Your task to perform on an android device: Go to Reddit.com Image 0: 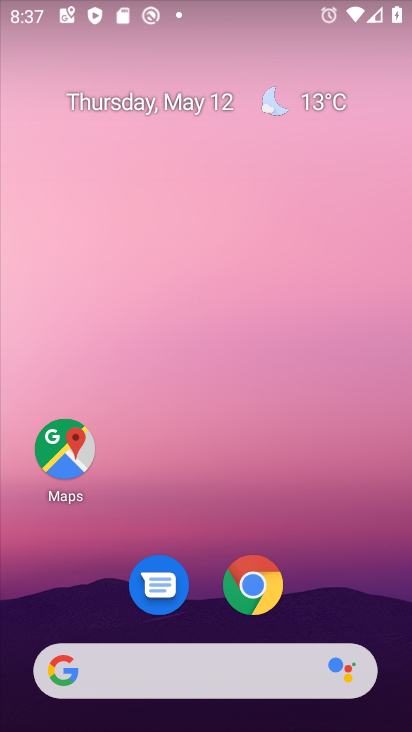
Step 0: drag from (227, 502) to (279, 8)
Your task to perform on an android device: Go to Reddit.com Image 1: 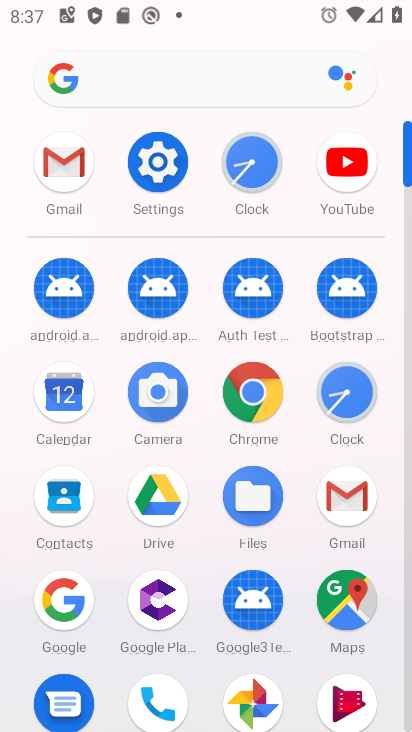
Step 1: click (247, 390)
Your task to perform on an android device: Go to Reddit.com Image 2: 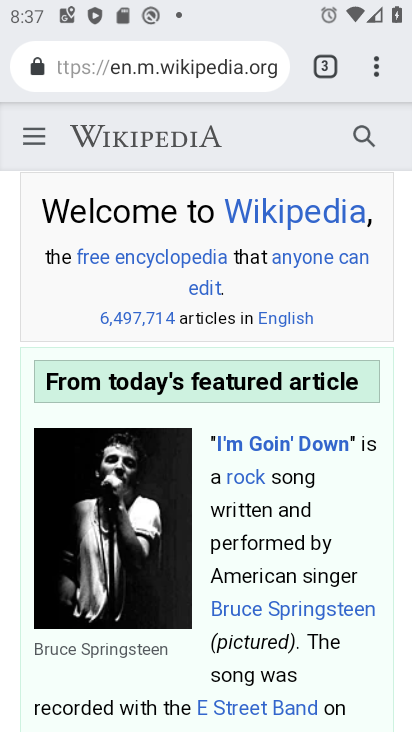
Step 2: click (378, 72)
Your task to perform on an android device: Go to Reddit.com Image 3: 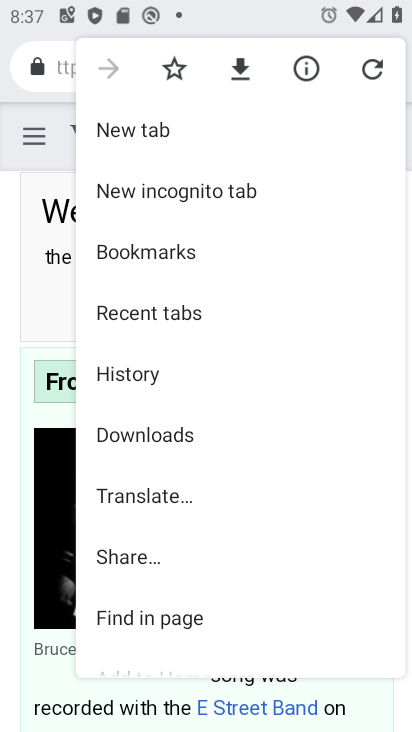
Step 3: click (253, 118)
Your task to perform on an android device: Go to Reddit.com Image 4: 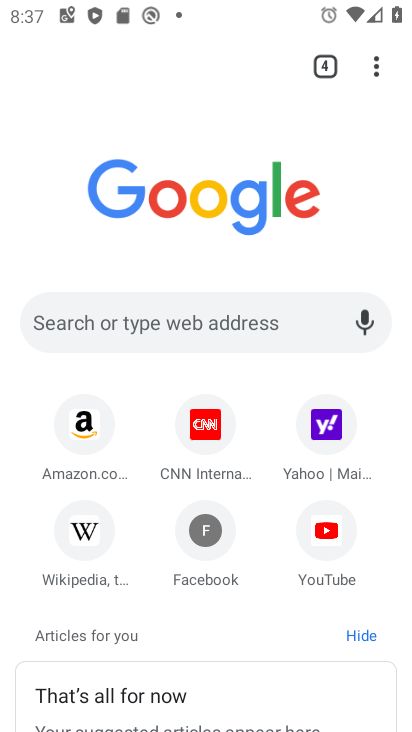
Step 4: click (200, 326)
Your task to perform on an android device: Go to Reddit.com Image 5: 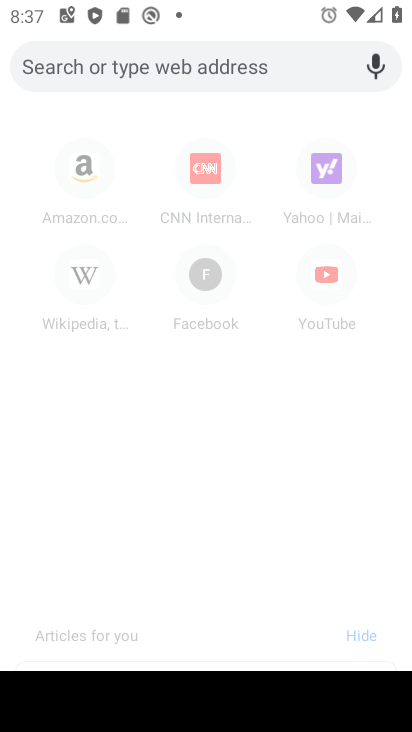
Step 5: type "reddit.com"
Your task to perform on an android device: Go to Reddit.com Image 6: 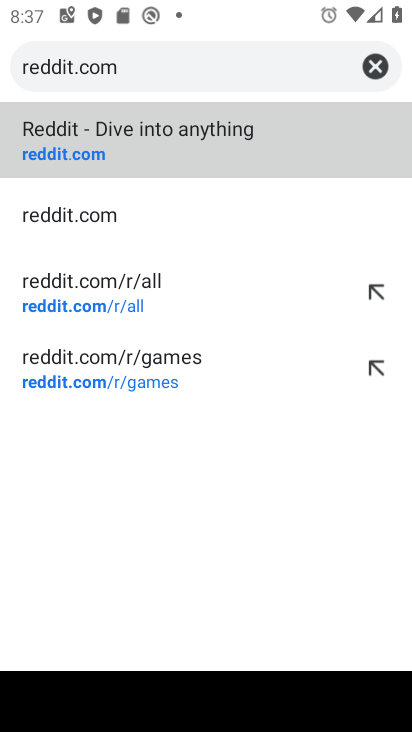
Step 6: click (72, 152)
Your task to perform on an android device: Go to Reddit.com Image 7: 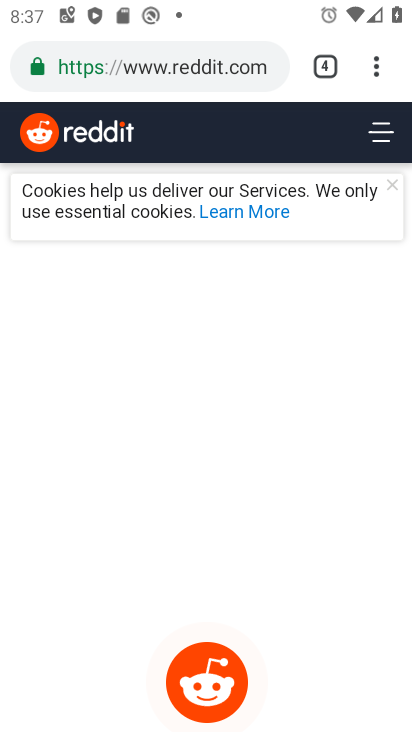
Step 7: task complete